Your task to perform on an android device: What is the news today? Image 0: 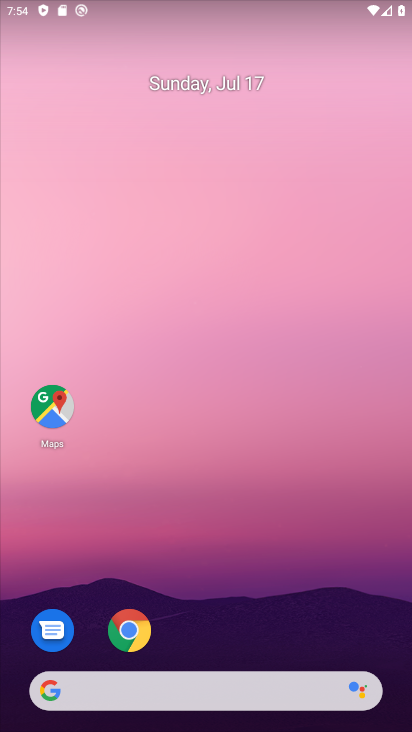
Step 0: click (168, 690)
Your task to perform on an android device: What is the news today? Image 1: 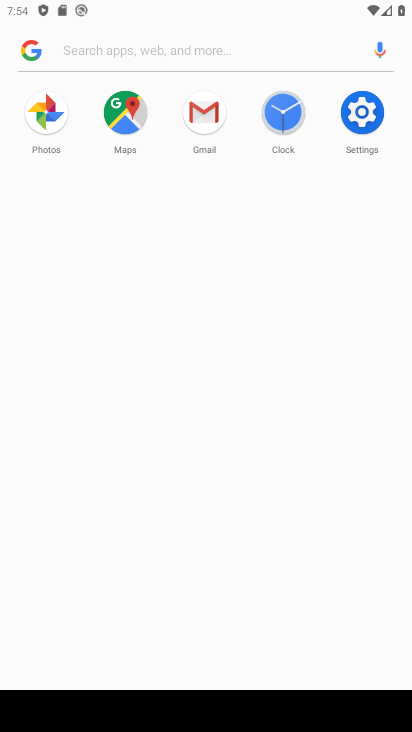
Step 1: type "What is the news today?"
Your task to perform on an android device: What is the news today? Image 2: 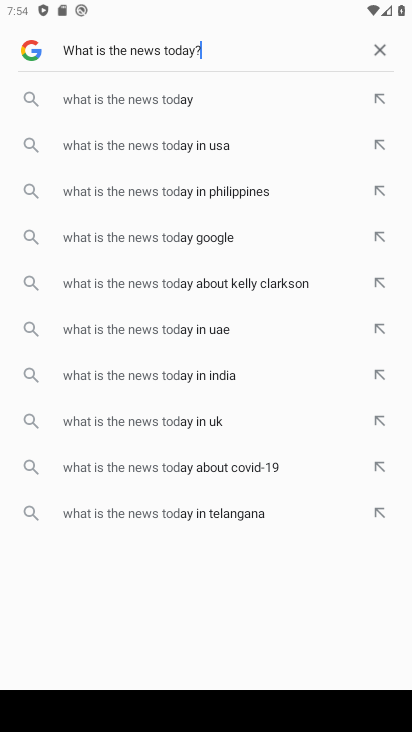
Step 2: type ""
Your task to perform on an android device: What is the news today? Image 3: 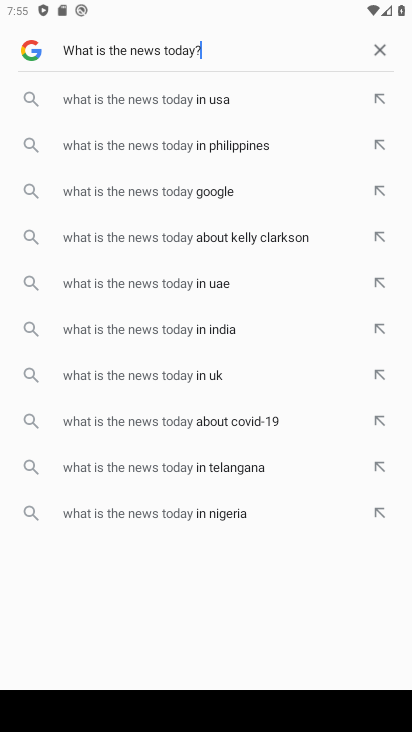
Step 3: task complete